Your task to perform on an android device: turn on the 12-hour format for clock Image 0: 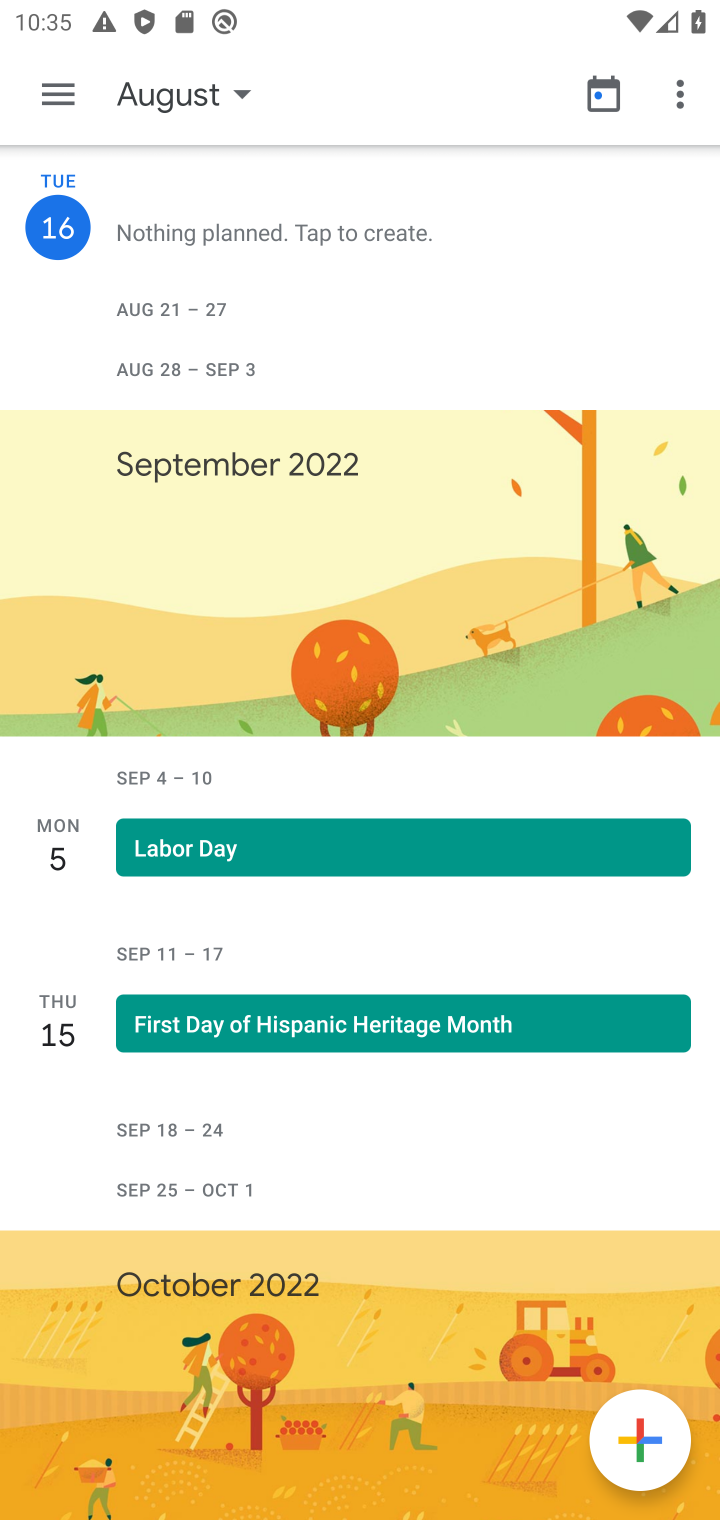
Step 0: press home button
Your task to perform on an android device: turn on the 12-hour format for clock Image 1: 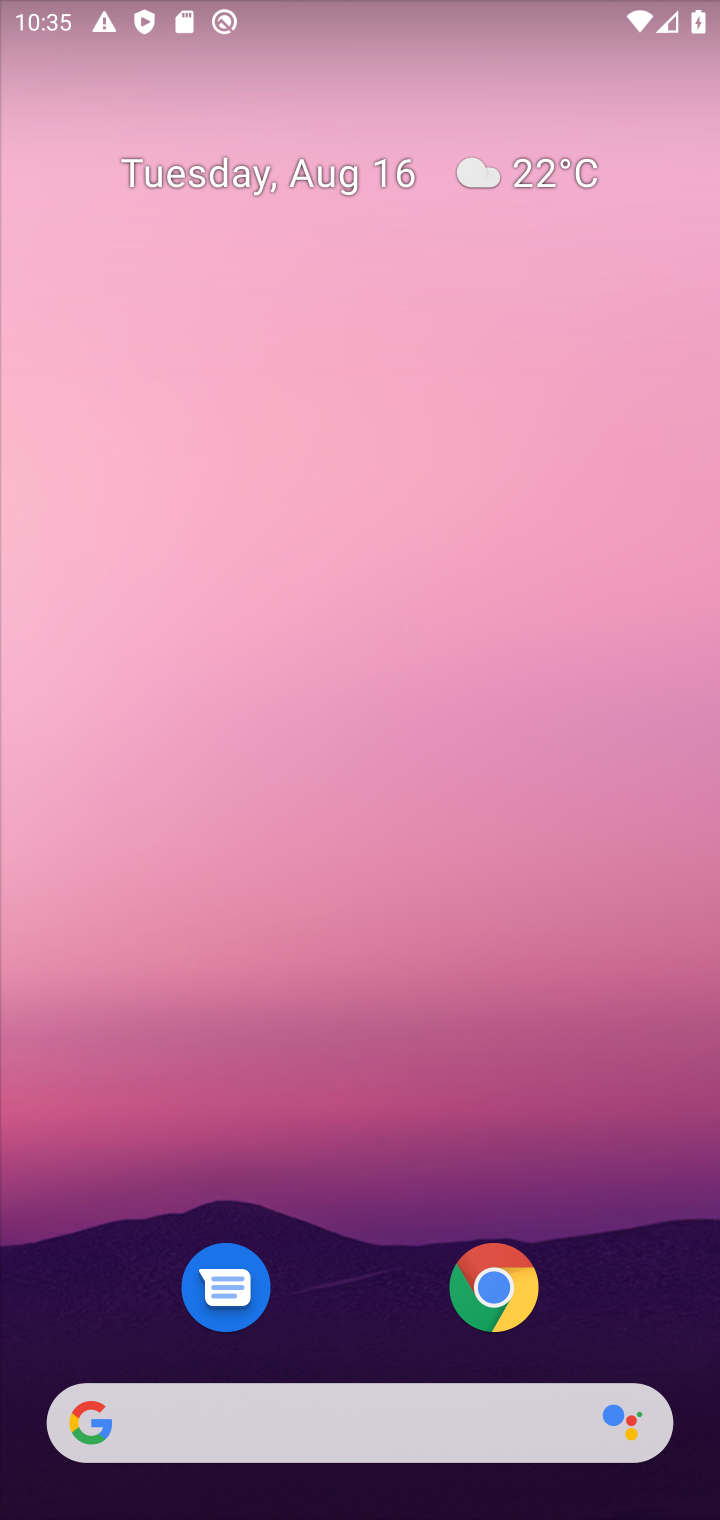
Step 1: drag from (619, 977) to (562, 304)
Your task to perform on an android device: turn on the 12-hour format for clock Image 2: 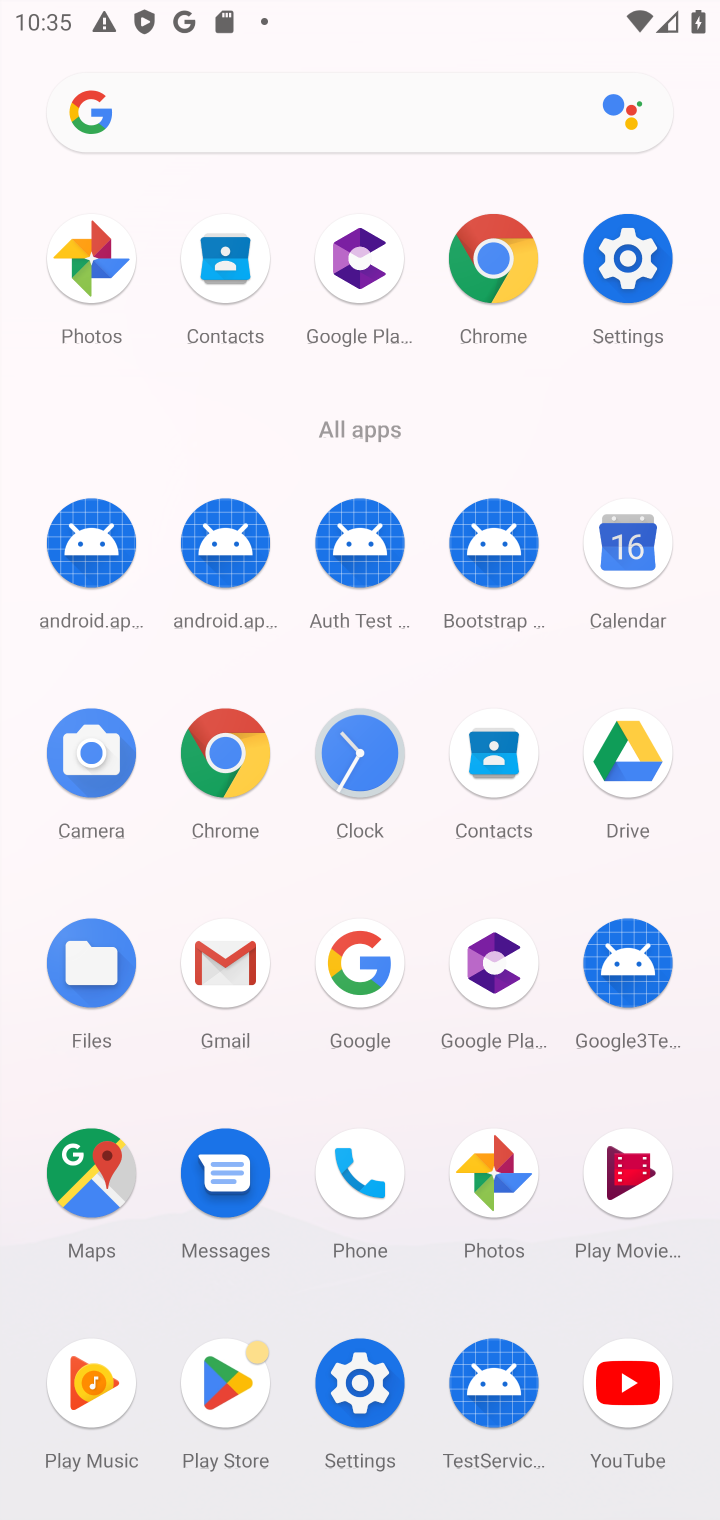
Step 2: click (356, 757)
Your task to perform on an android device: turn on the 12-hour format for clock Image 3: 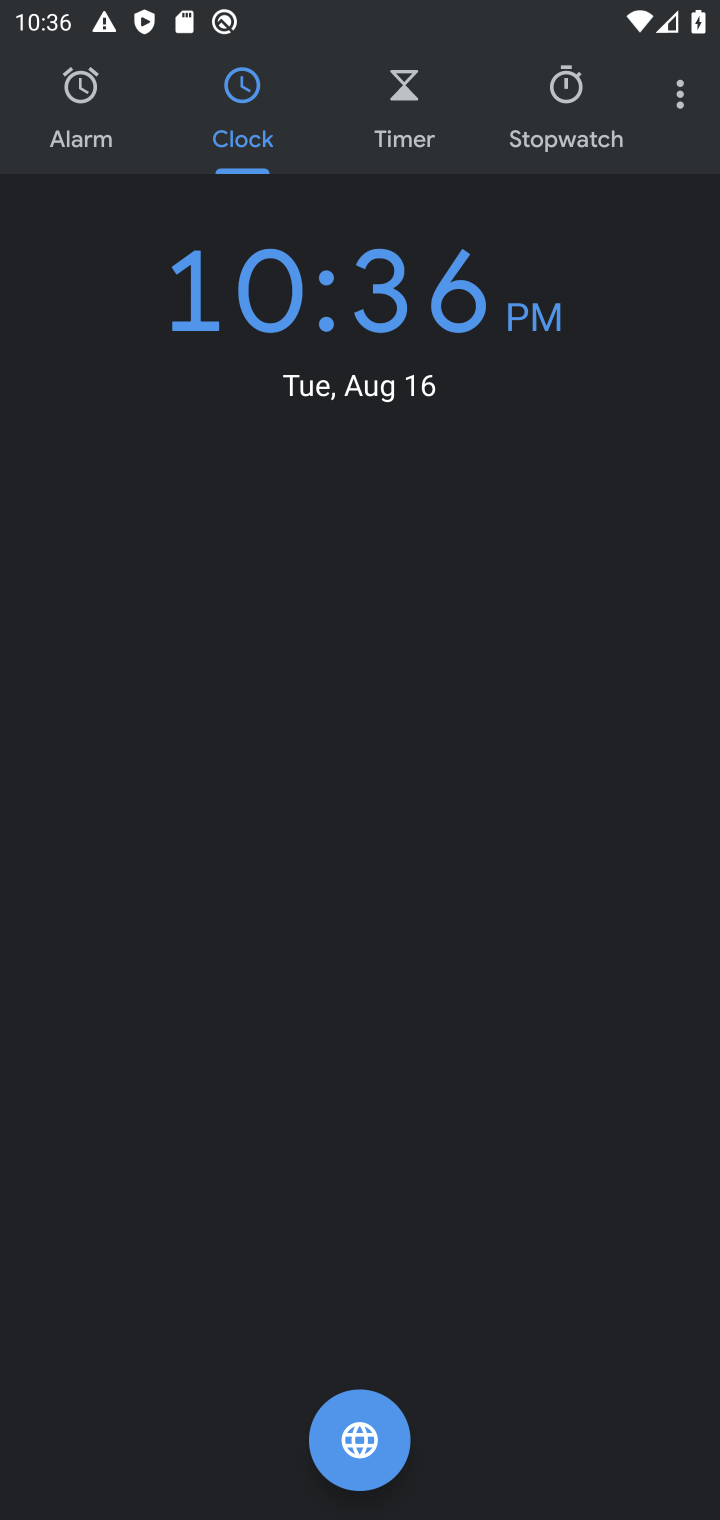
Step 3: click (670, 112)
Your task to perform on an android device: turn on the 12-hour format for clock Image 4: 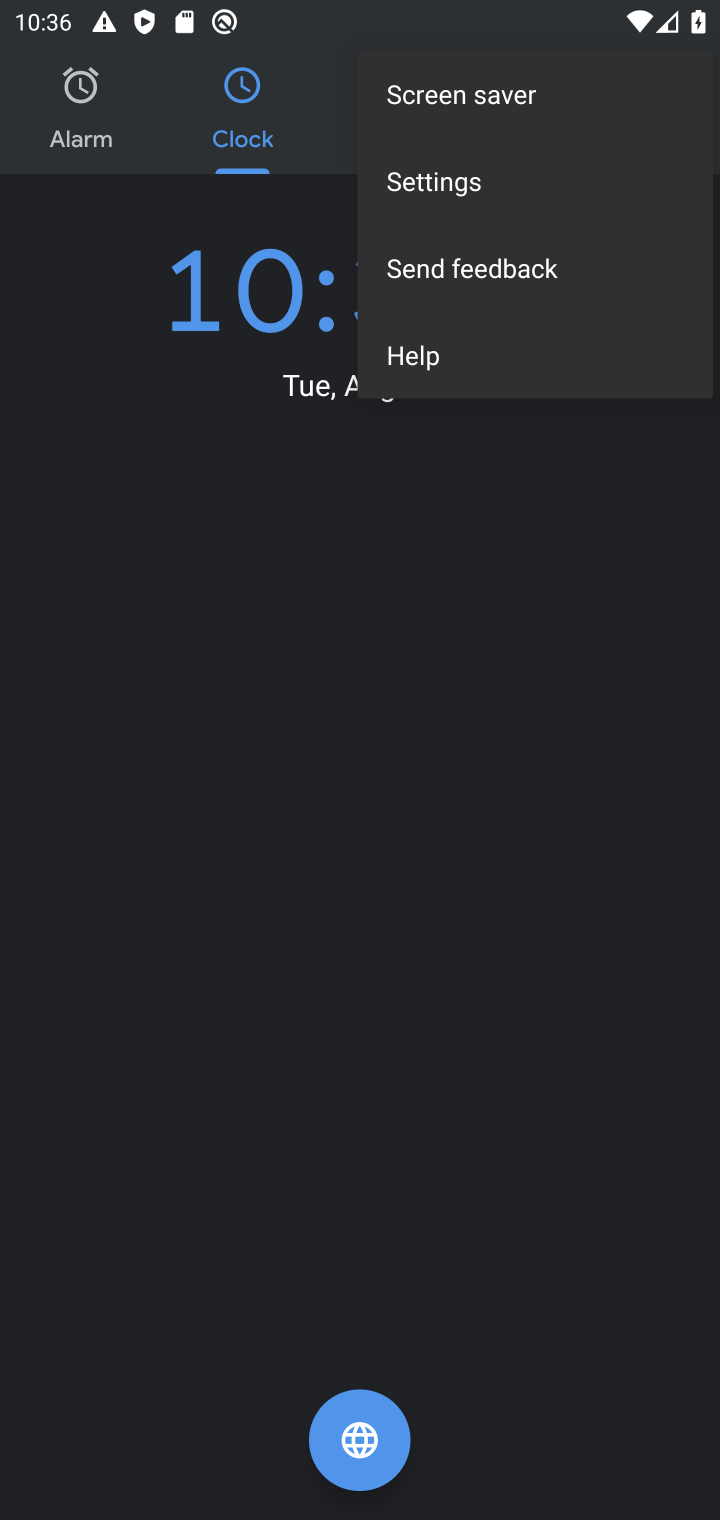
Step 4: click (438, 173)
Your task to perform on an android device: turn on the 12-hour format for clock Image 5: 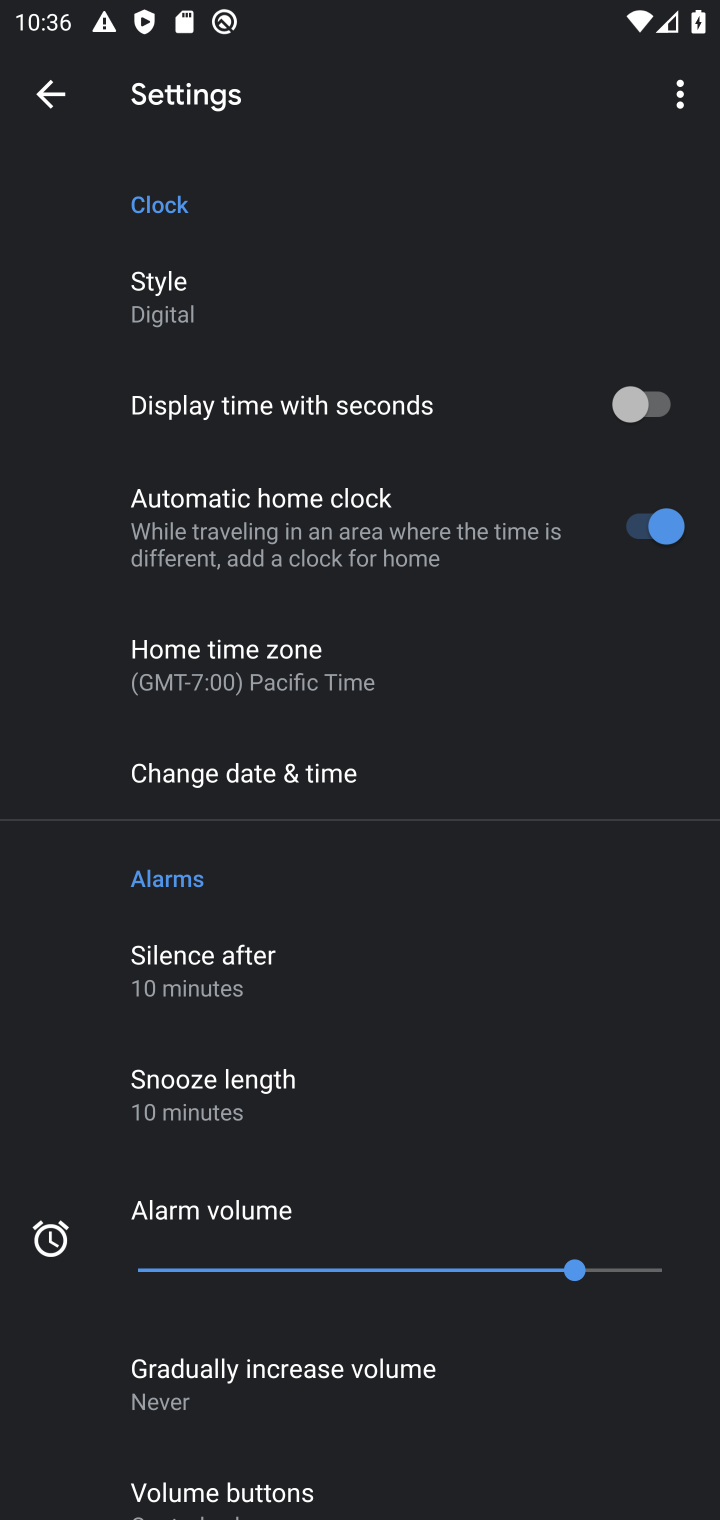
Step 5: click (290, 785)
Your task to perform on an android device: turn on the 12-hour format for clock Image 6: 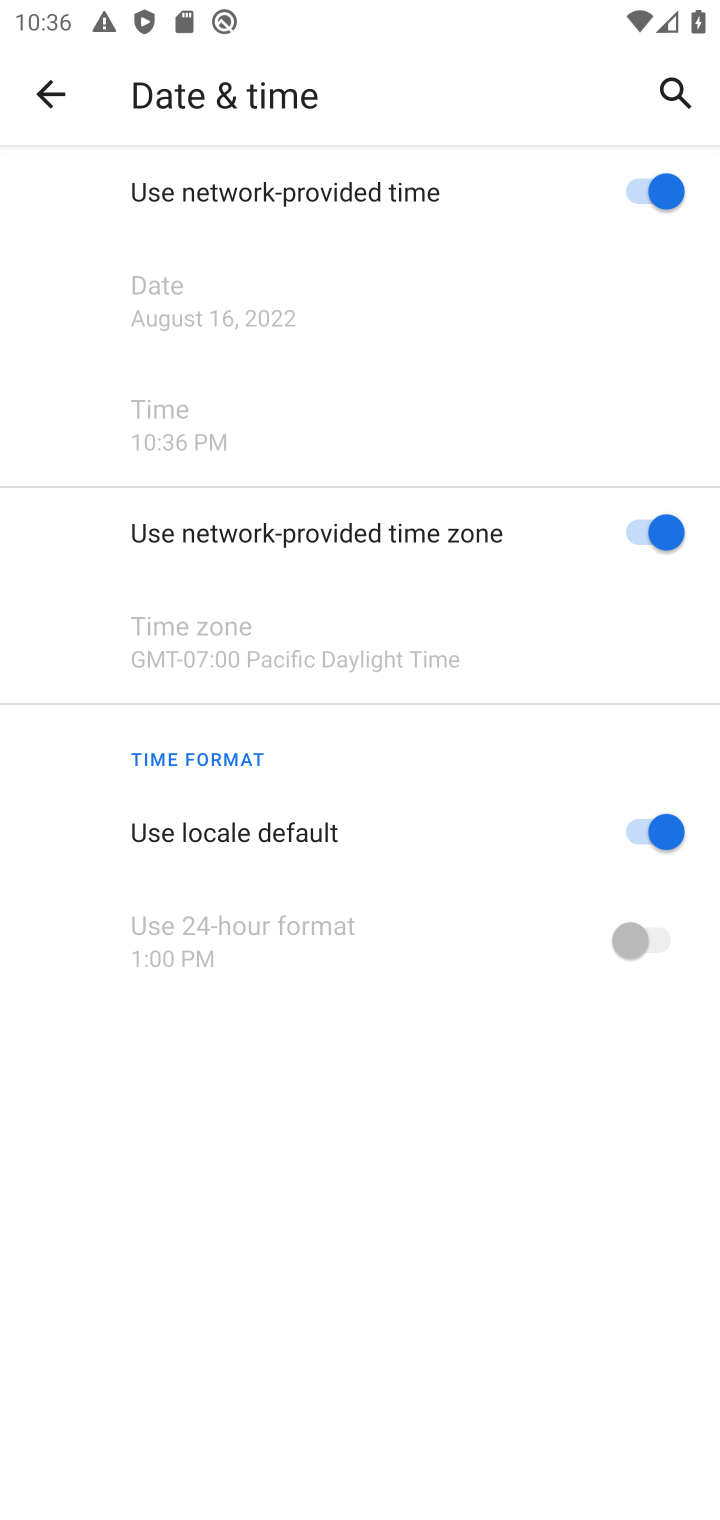
Step 6: task complete